Your task to perform on an android device: change the upload size in google photos Image 0: 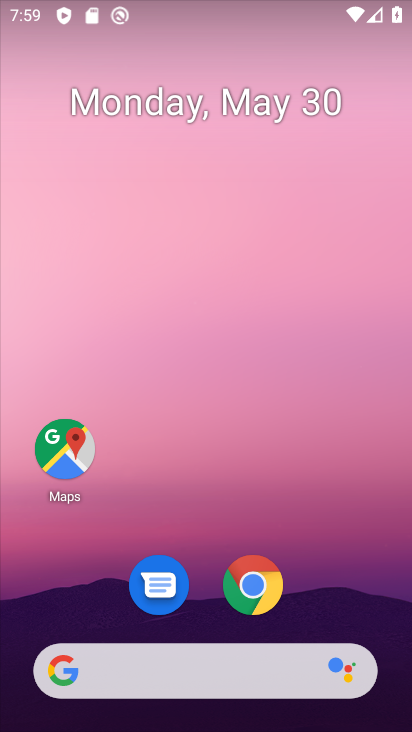
Step 0: drag from (215, 527) to (213, 1)
Your task to perform on an android device: change the upload size in google photos Image 1: 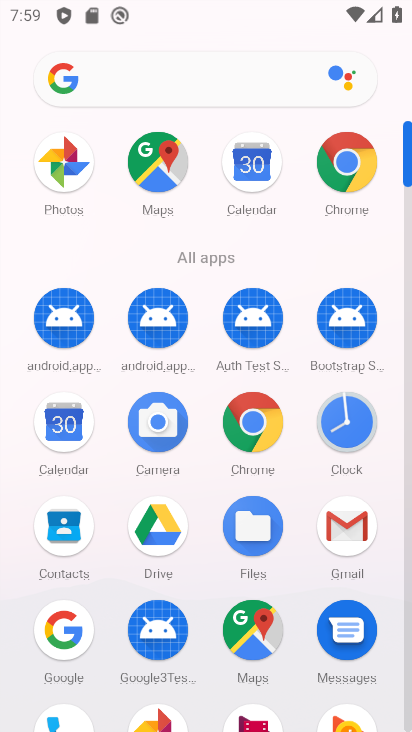
Step 1: click (59, 156)
Your task to perform on an android device: change the upload size in google photos Image 2: 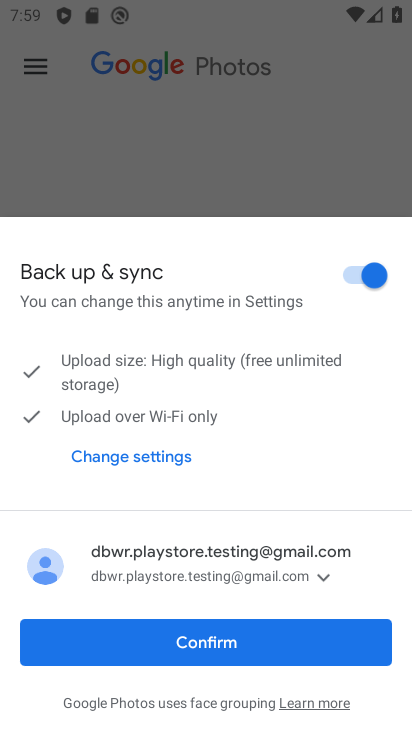
Step 2: click (243, 635)
Your task to perform on an android device: change the upload size in google photos Image 3: 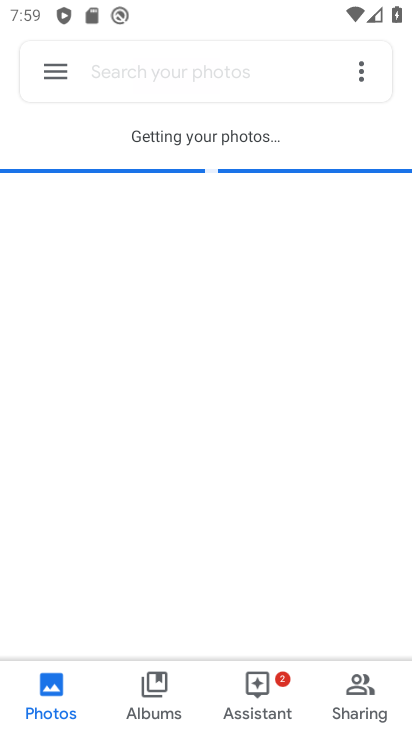
Step 3: click (55, 65)
Your task to perform on an android device: change the upload size in google photos Image 4: 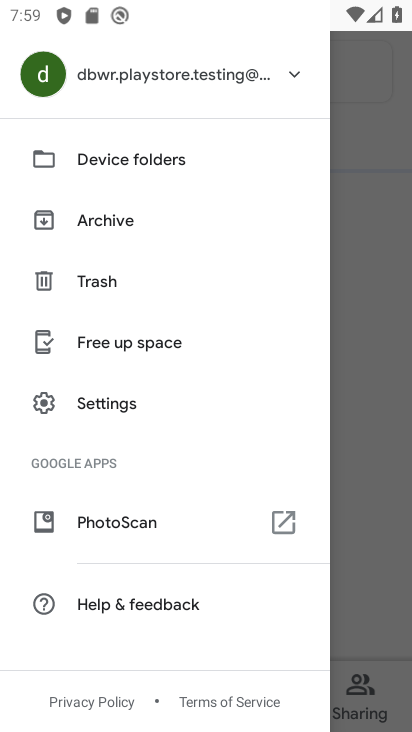
Step 4: click (116, 398)
Your task to perform on an android device: change the upload size in google photos Image 5: 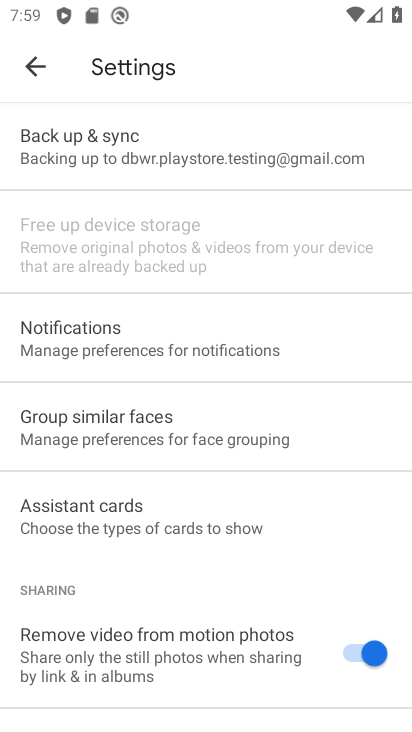
Step 5: click (145, 141)
Your task to perform on an android device: change the upload size in google photos Image 6: 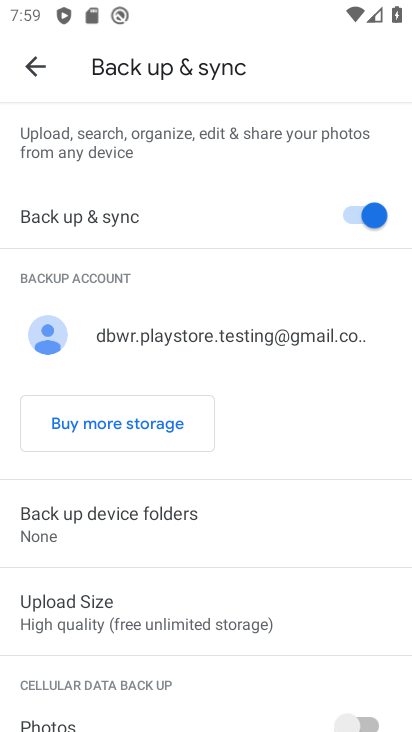
Step 6: click (176, 607)
Your task to perform on an android device: change the upload size in google photos Image 7: 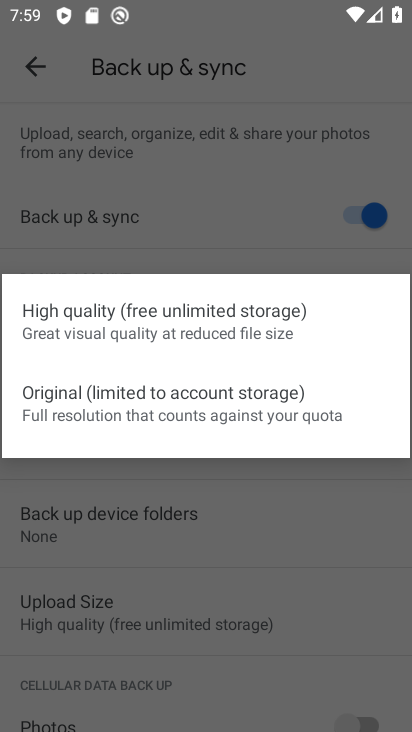
Step 7: click (150, 401)
Your task to perform on an android device: change the upload size in google photos Image 8: 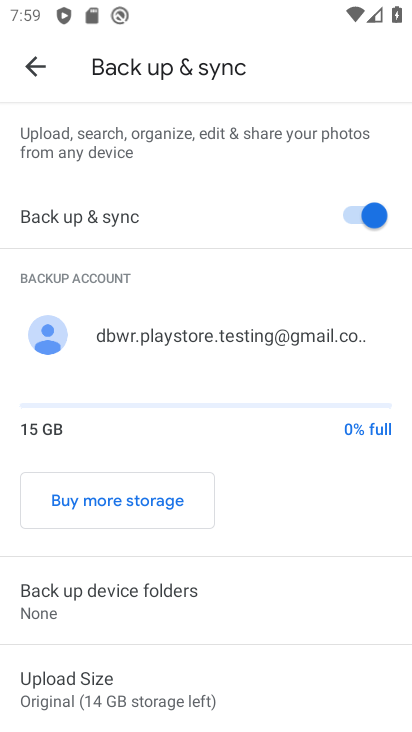
Step 8: task complete